Your task to perform on an android device: delete location history Image 0: 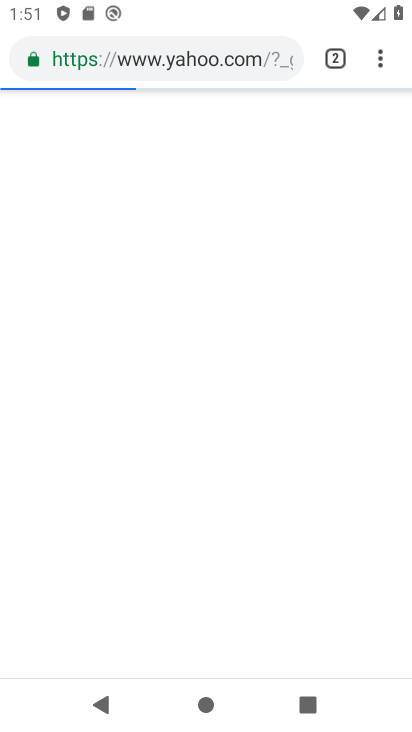
Step 0: press home button
Your task to perform on an android device: delete location history Image 1: 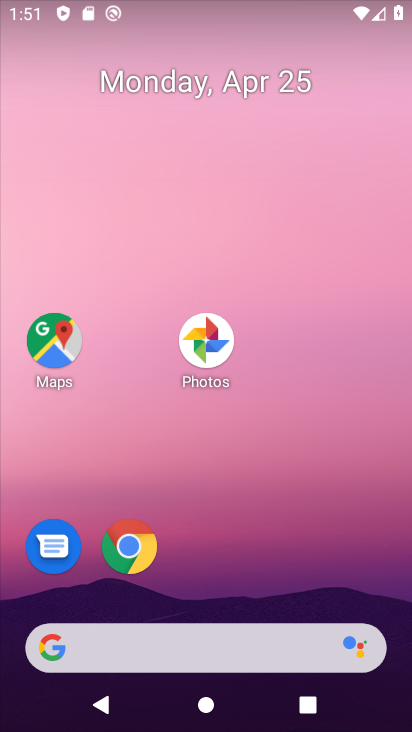
Step 1: drag from (280, 544) to (295, 226)
Your task to perform on an android device: delete location history Image 2: 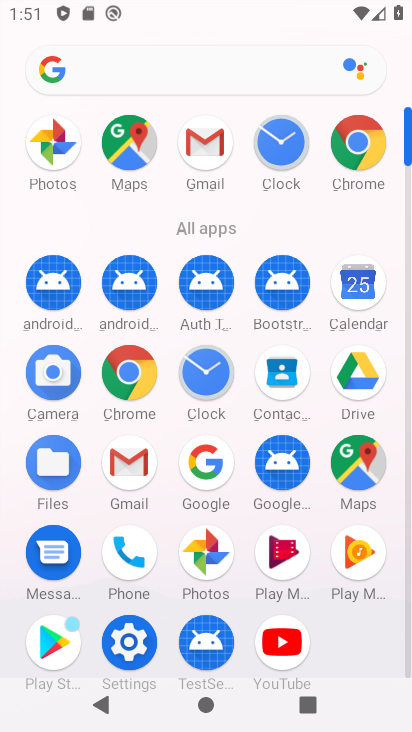
Step 2: click (137, 141)
Your task to perform on an android device: delete location history Image 3: 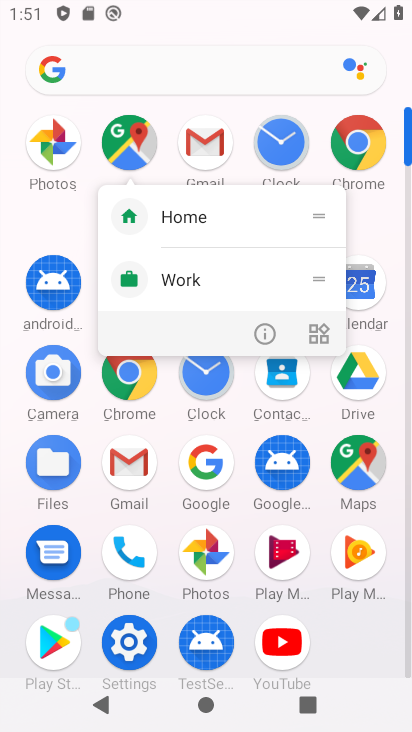
Step 3: click (137, 141)
Your task to perform on an android device: delete location history Image 4: 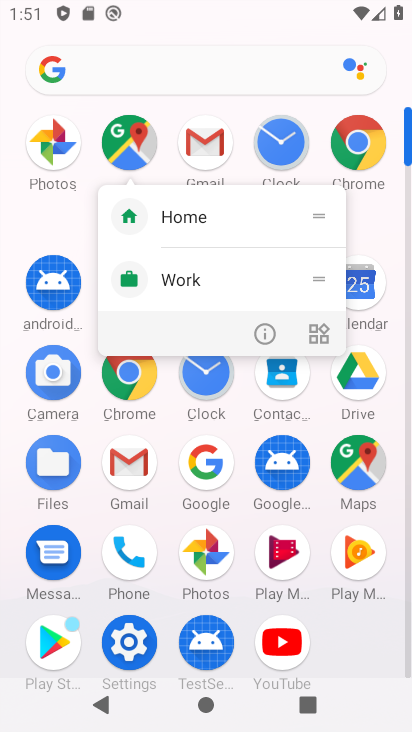
Step 4: click (133, 136)
Your task to perform on an android device: delete location history Image 5: 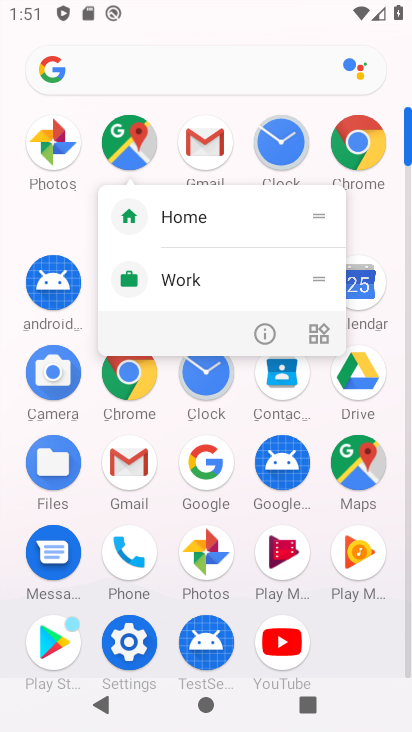
Step 5: click (133, 136)
Your task to perform on an android device: delete location history Image 6: 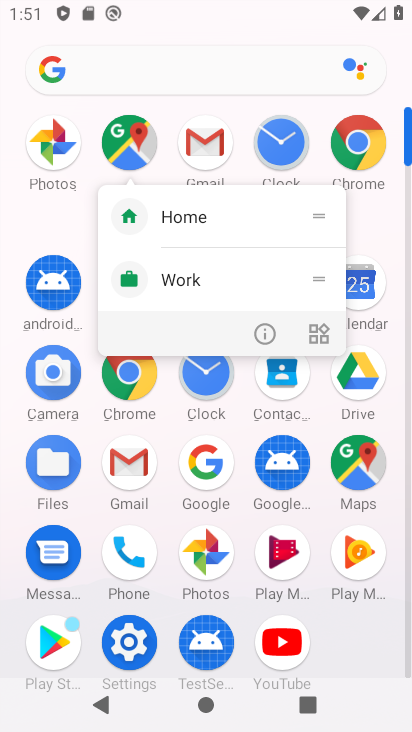
Step 6: click (351, 448)
Your task to perform on an android device: delete location history Image 7: 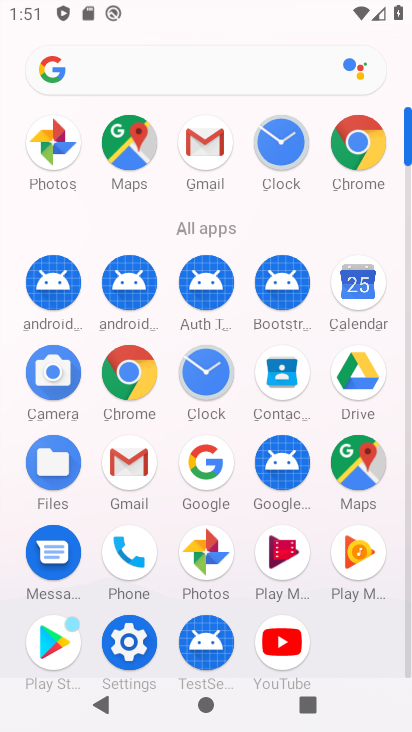
Step 7: click (369, 454)
Your task to perform on an android device: delete location history Image 8: 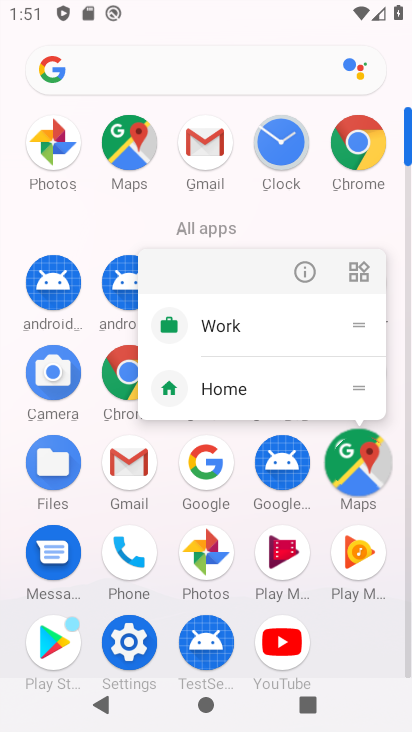
Step 8: click (369, 454)
Your task to perform on an android device: delete location history Image 9: 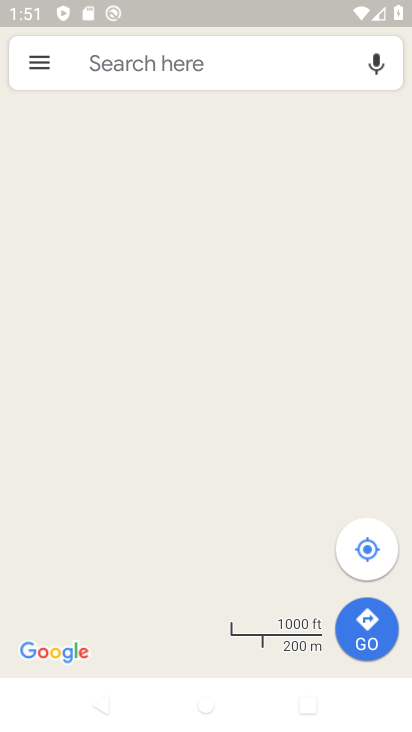
Step 9: click (30, 73)
Your task to perform on an android device: delete location history Image 10: 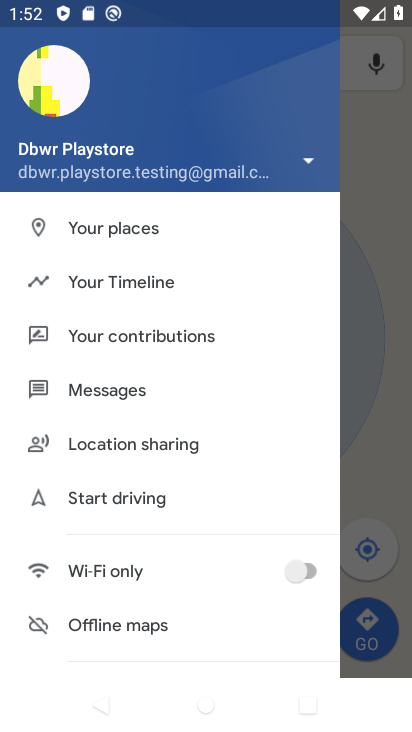
Step 10: click (143, 278)
Your task to perform on an android device: delete location history Image 11: 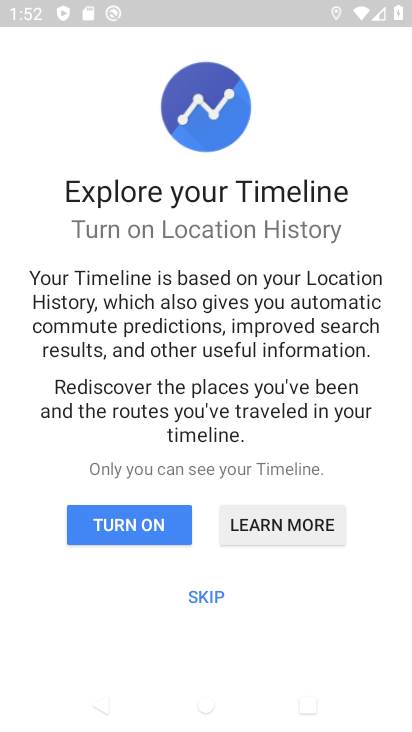
Step 11: click (197, 598)
Your task to perform on an android device: delete location history Image 12: 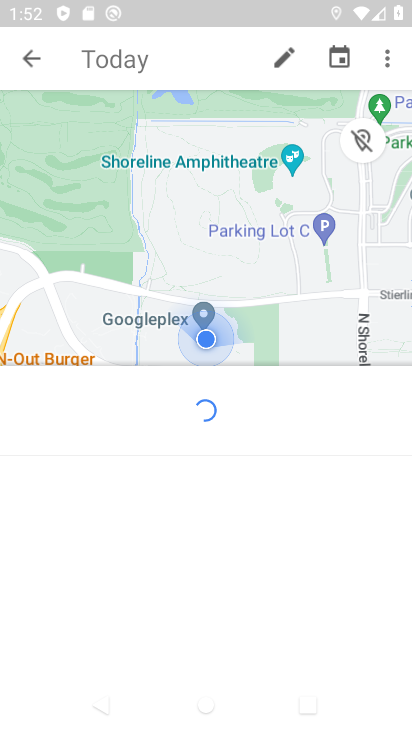
Step 12: click (380, 50)
Your task to perform on an android device: delete location history Image 13: 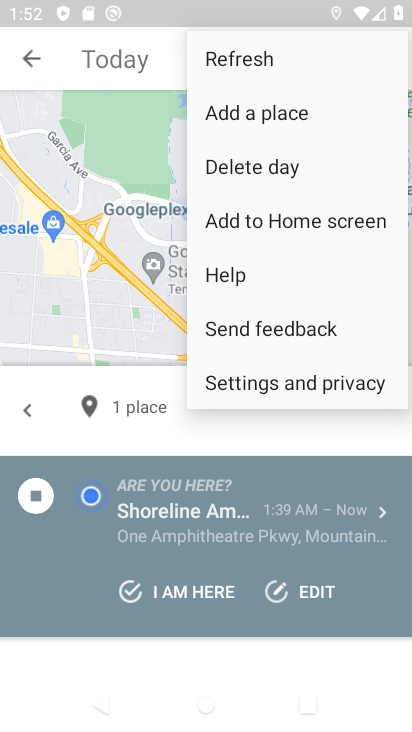
Step 13: click (256, 384)
Your task to perform on an android device: delete location history Image 14: 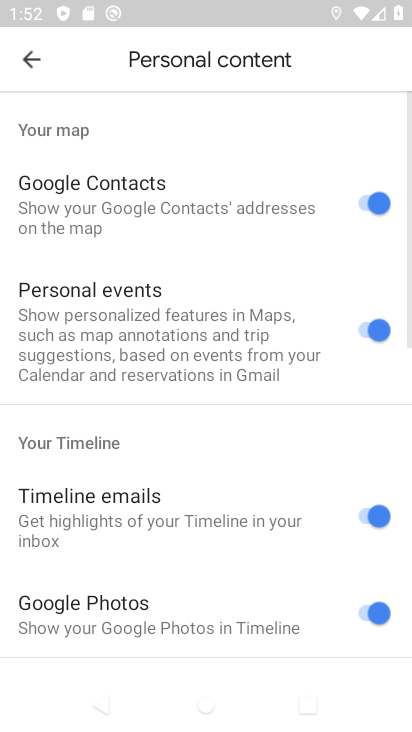
Step 14: drag from (149, 577) to (154, 112)
Your task to perform on an android device: delete location history Image 15: 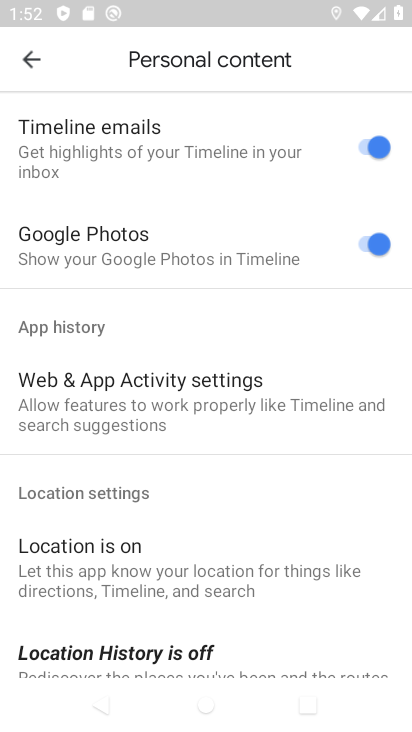
Step 15: drag from (149, 636) to (213, 221)
Your task to perform on an android device: delete location history Image 16: 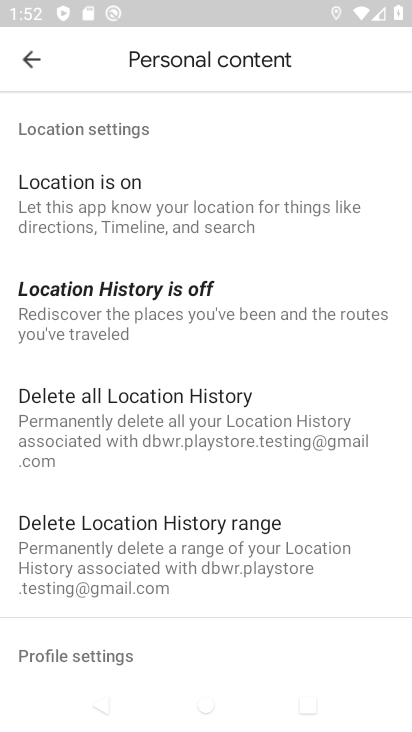
Step 16: click (168, 425)
Your task to perform on an android device: delete location history Image 17: 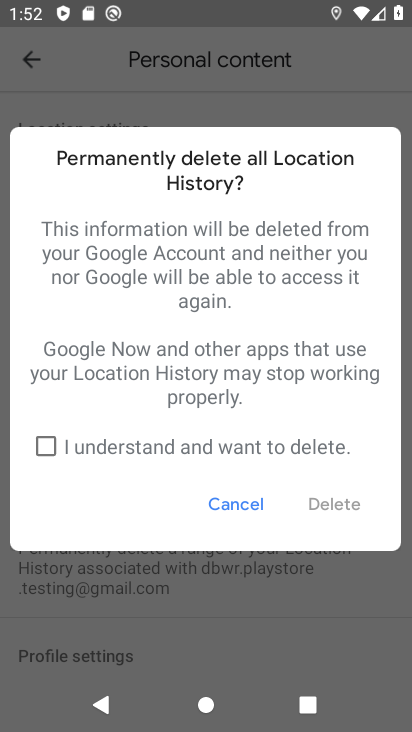
Step 17: click (48, 441)
Your task to perform on an android device: delete location history Image 18: 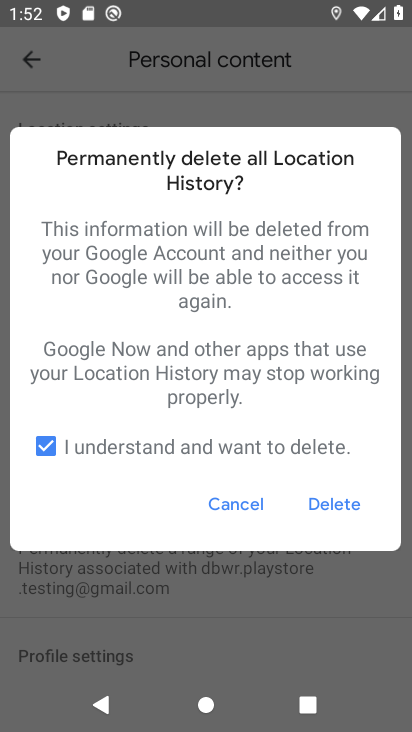
Step 18: click (337, 497)
Your task to perform on an android device: delete location history Image 19: 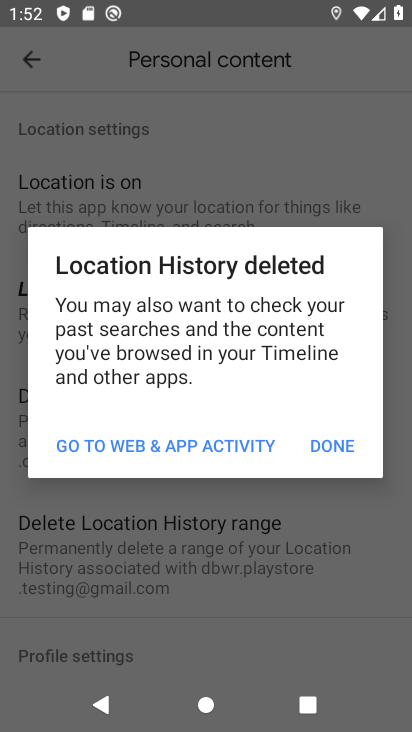
Step 19: click (344, 445)
Your task to perform on an android device: delete location history Image 20: 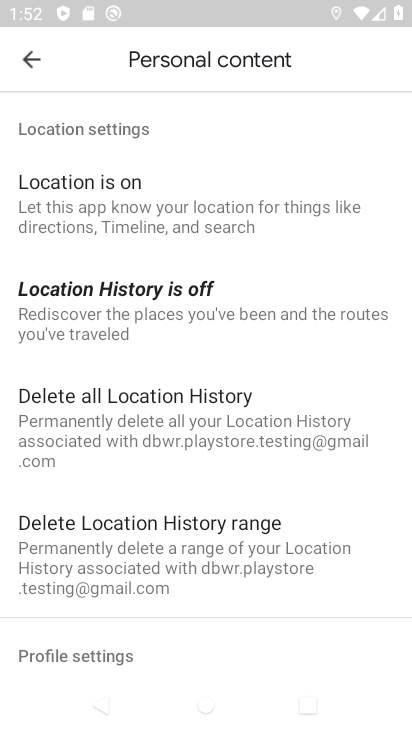
Step 20: task complete